Your task to perform on an android device: turn on improve location accuracy Image 0: 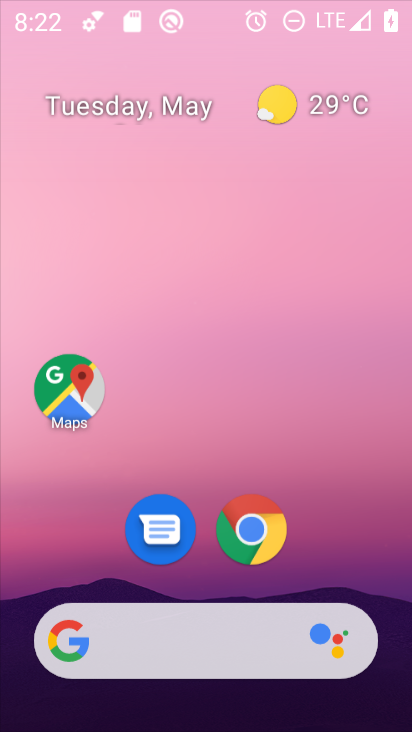
Step 0: drag from (390, 618) to (272, 198)
Your task to perform on an android device: turn on improve location accuracy Image 1: 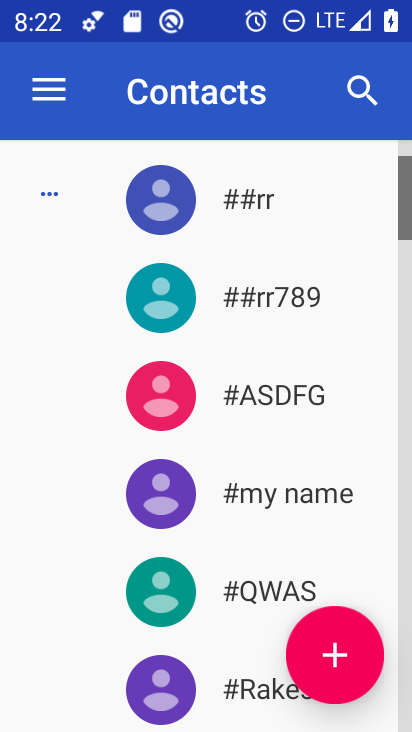
Step 1: press home button
Your task to perform on an android device: turn on improve location accuracy Image 2: 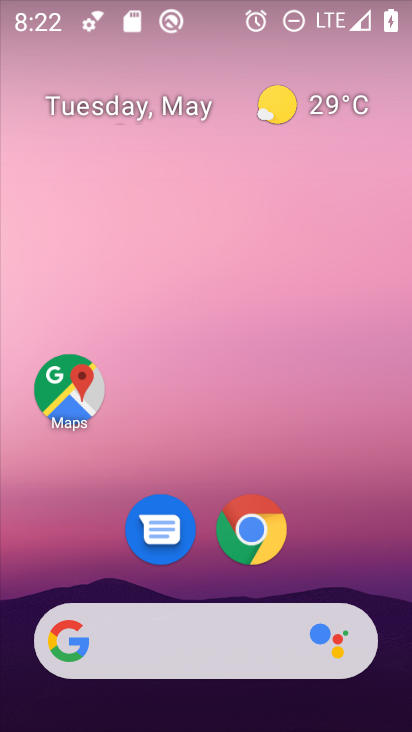
Step 2: drag from (393, 652) to (282, 182)
Your task to perform on an android device: turn on improve location accuracy Image 3: 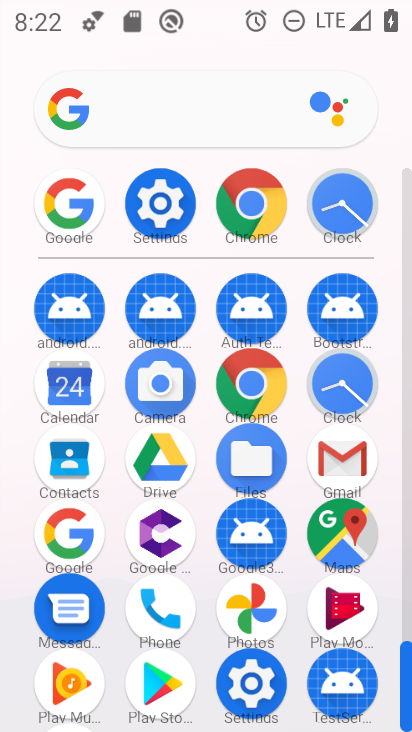
Step 3: click (163, 203)
Your task to perform on an android device: turn on improve location accuracy Image 4: 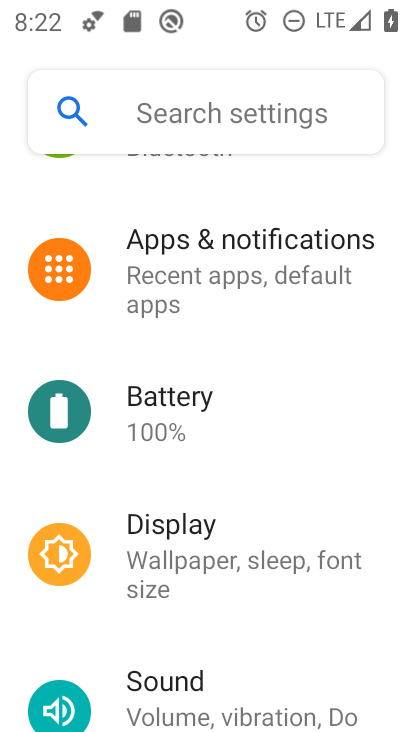
Step 4: drag from (163, 611) to (203, 311)
Your task to perform on an android device: turn on improve location accuracy Image 5: 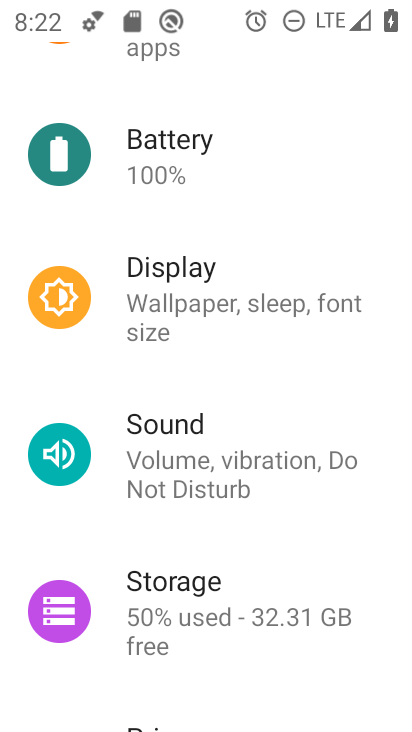
Step 5: drag from (151, 648) to (171, 384)
Your task to perform on an android device: turn on improve location accuracy Image 6: 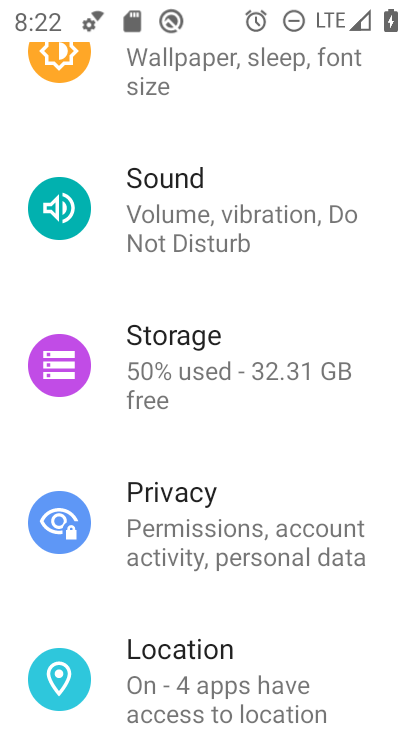
Step 6: click (159, 663)
Your task to perform on an android device: turn on improve location accuracy Image 7: 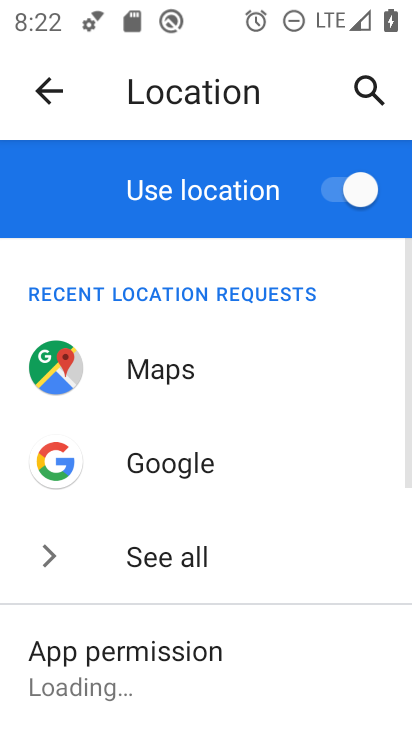
Step 7: drag from (161, 659) to (161, 300)
Your task to perform on an android device: turn on improve location accuracy Image 8: 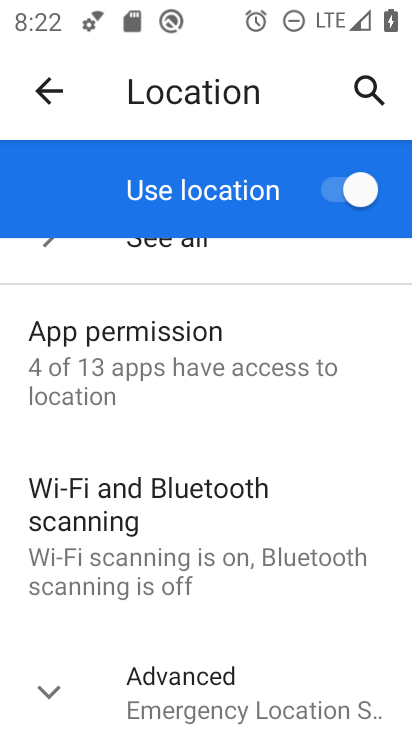
Step 8: drag from (153, 604) to (180, 361)
Your task to perform on an android device: turn on improve location accuracy Image 9: 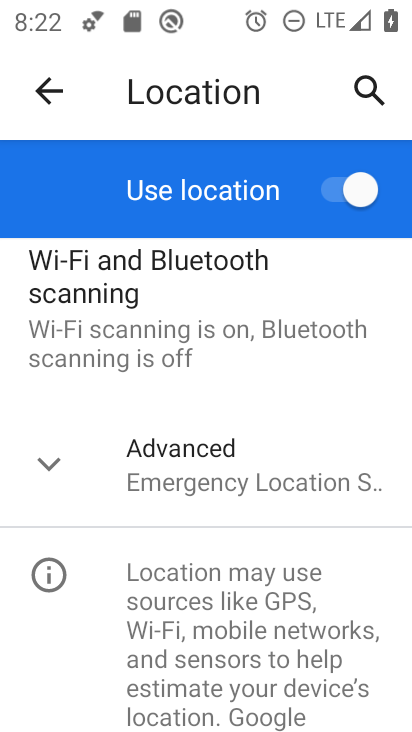
Step 9: click (56, 458)
Your task to perform on an android device: turn on improve location accuracy Image 10: 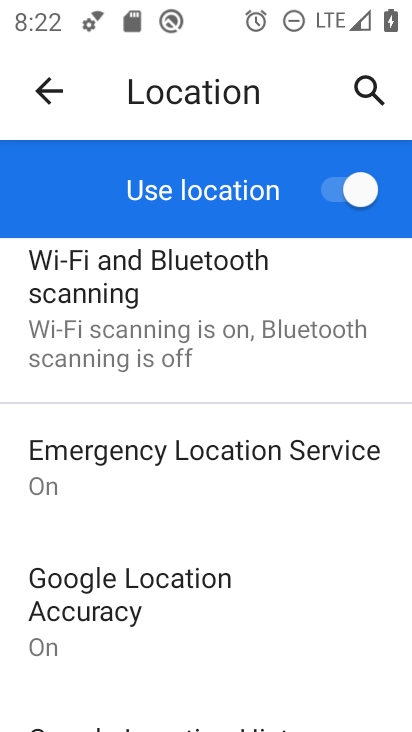
Step 10: click (139, 616)
Your task to perform on an android device: turn on improve location accuracy Image 11: 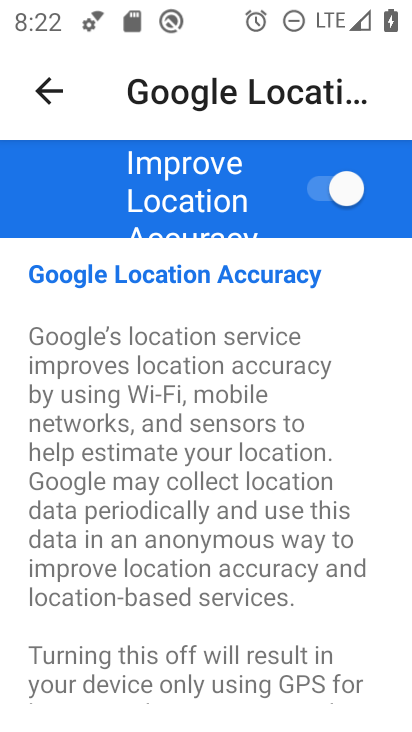
Step 11: task complete